Your task to perform on an android device: turn off sleep mode Image 0: 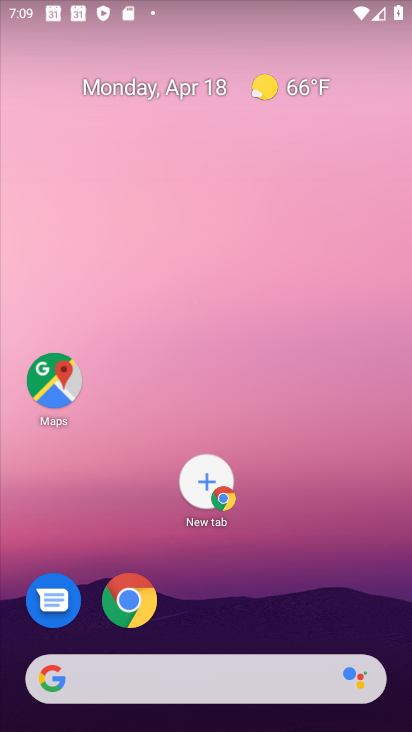
Step 0: drag from (284, 590) to (293, 11)
Your task to perform on an android device: turn off sleep mode Image 1: 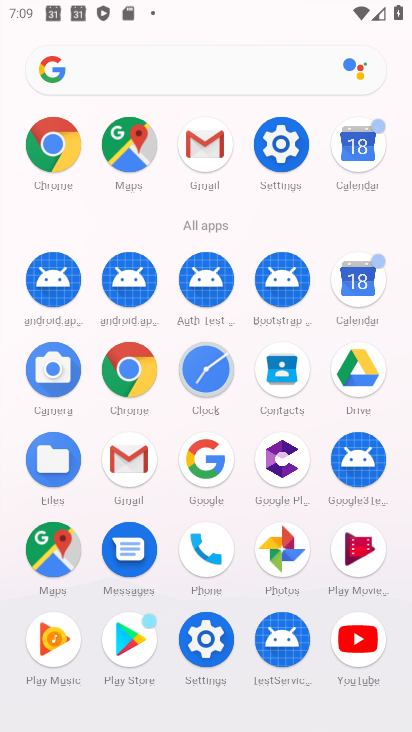
Step 1: click (276, 167)
Your task to perform on an android device: turn off sleep mode Image 2: 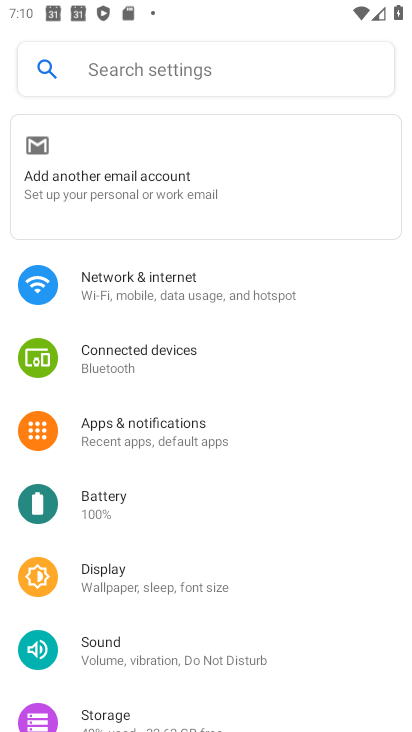
Step 2: drag from (262, 508) to (269, 95)
Your task to perform on an android device: turn off sleep mode Image 3: 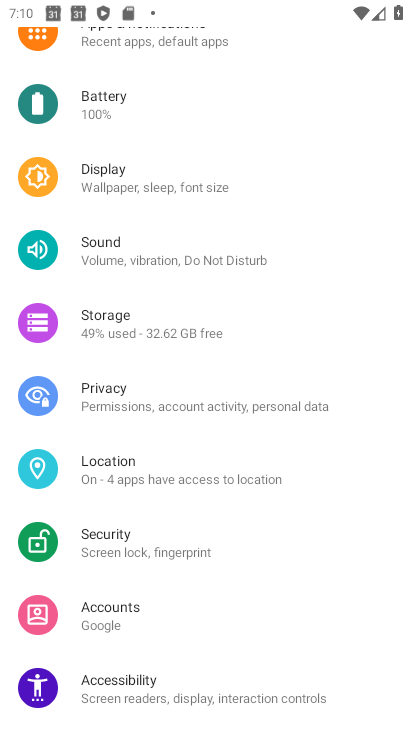
Step 3: drag from (324, 224) to (309, 673)
Your task to perform on an android device: turn off sleep mode Image 4: 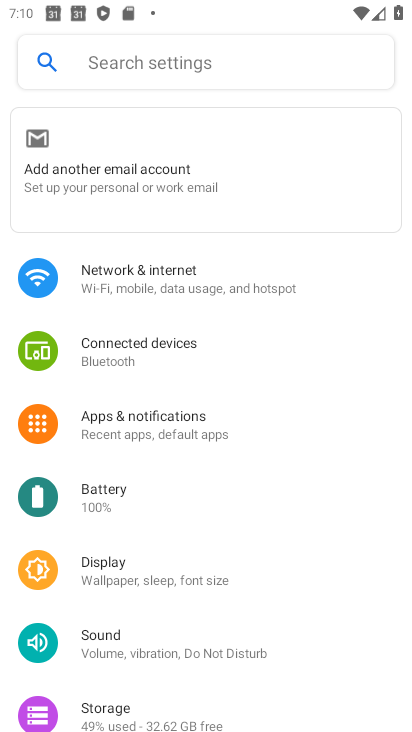
Step 4: drag from (288, 617) to (298, 402)
Your task to perform on an android device: turn off sleep mode Image 5: 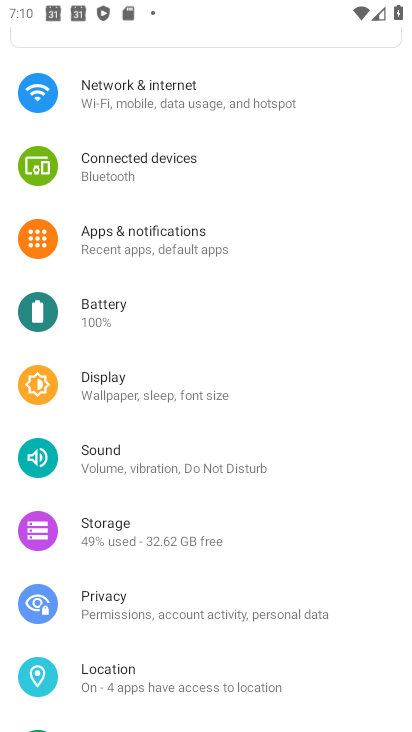
Step 5: click (111, 380)
Your task to perform on an android device: turn off sleep mode Image 6: 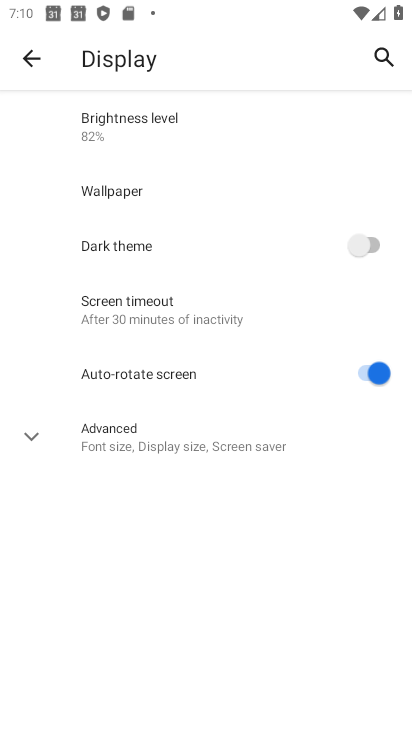
Step 6: click (112, 439)
Your task to perform on an android device: turn off sleep mode Image 7: 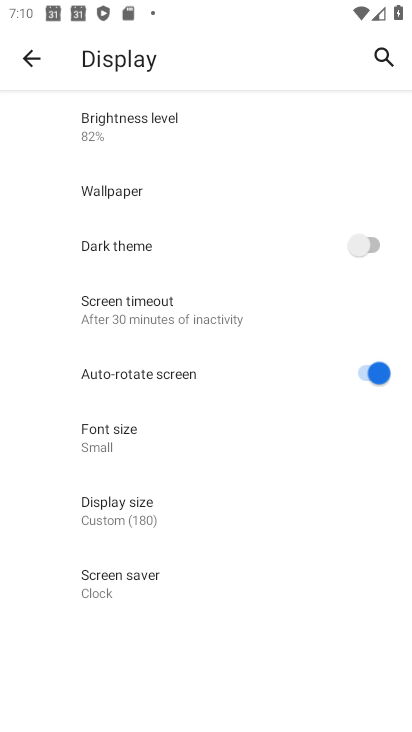
Step 7: task complete